Your task to perform on an android device: Open settings Image 0: 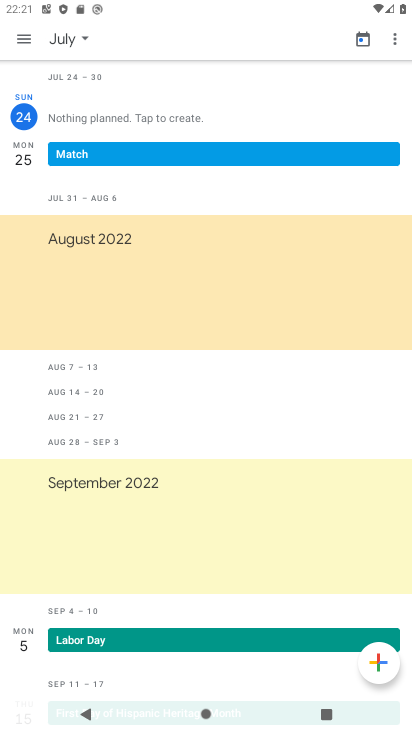
Step 0: press home button
Your task to perform on an android device: Open settings Image 1: 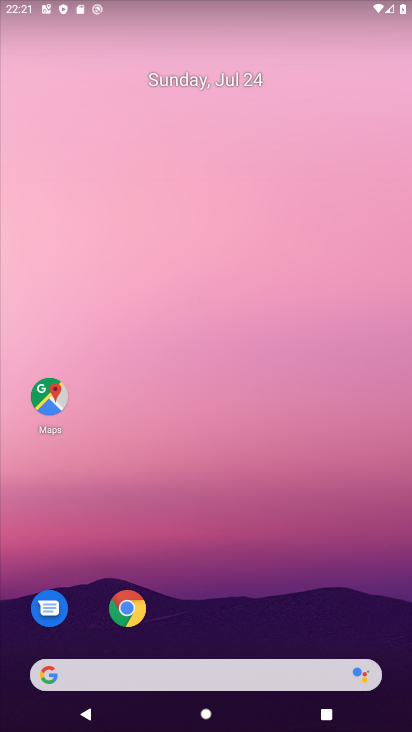
Step 1: drag from (287, 612) to (287, 144)
Your task to perform on an android device: Open settings Image 2: 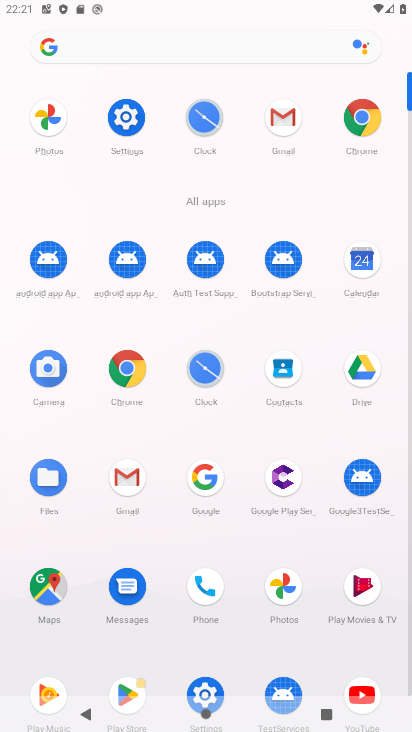
Step 2: click (209, 680)
Your task to perform on an android device: Open settings Image 3: 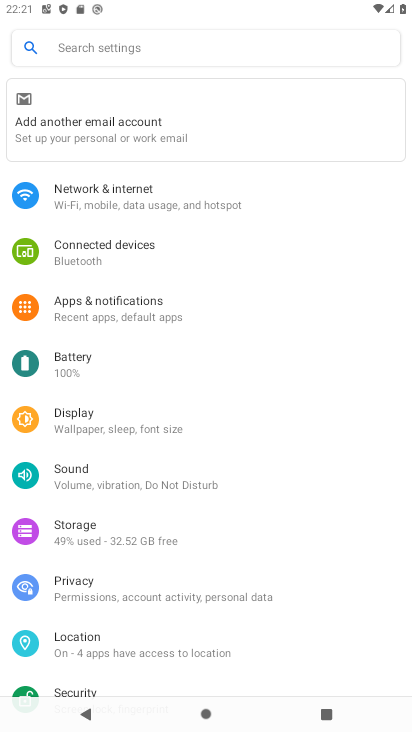
Step 3: task complete